Your task to perform on an android device: Open the phone app and click the voicemail tab. Image 0: 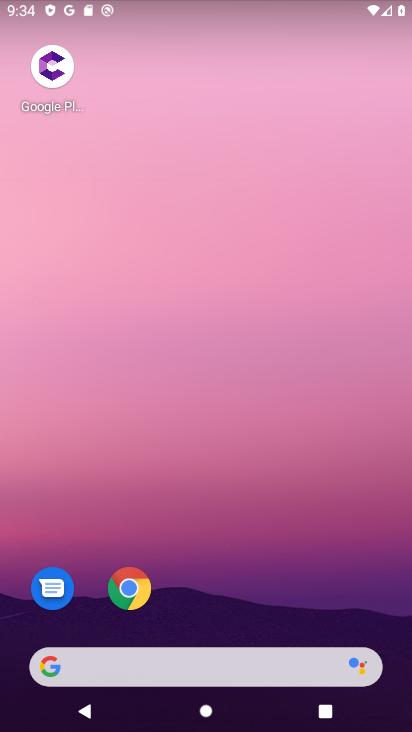
Step 0: drag from (247, 598) to (274, 11)
Your task to perform on an android device: Open the phone app and click the voicemail tab. Image 1: 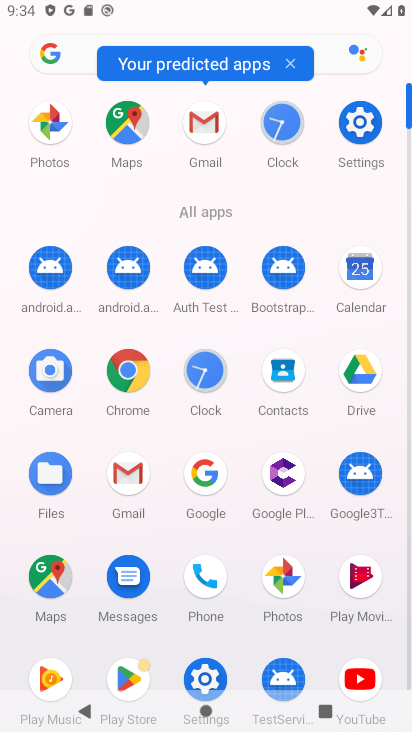
Step 1: click (215, 574)
Your task to perform on an android device: Open the phone app and click the voicemail tab. Image 2: 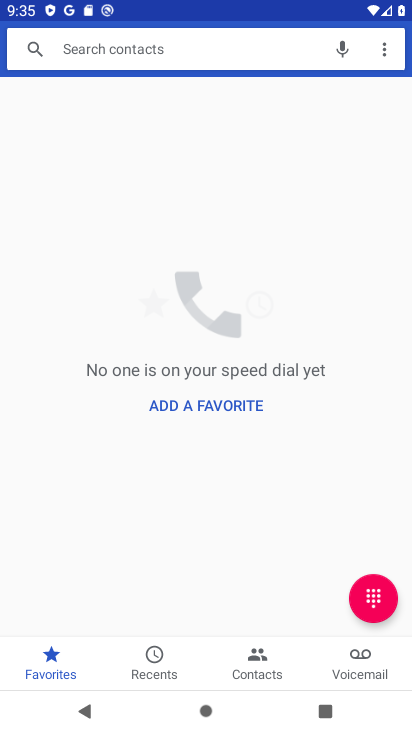
Step 2: click (356, 656)
Your task to perform on an android device: Open the phone app and click the voicemail tab. Image 3: 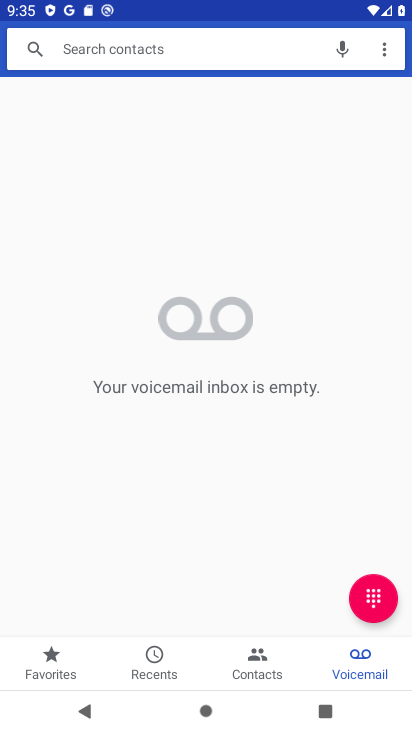
Step 3: task complete